Your task to perform on an android device: Go to settings Image 0: 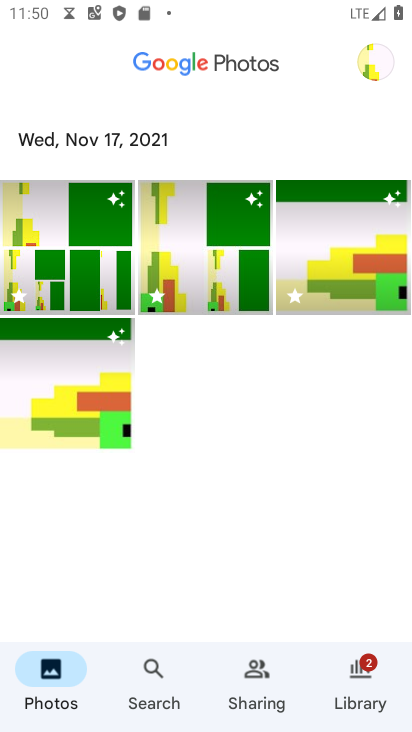
Step 0: press home button
Your task to perform on an android device: Go to settings Image 1: 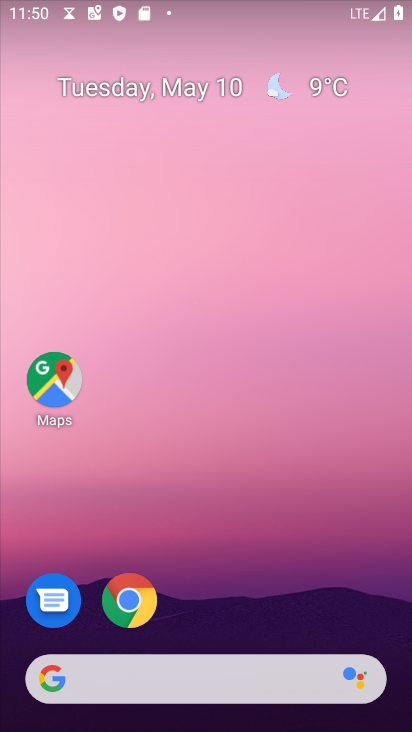
Step 1: drag from (248, 549) to (177, 87)
Your task to perform on an android device: Go to settings Image 2: 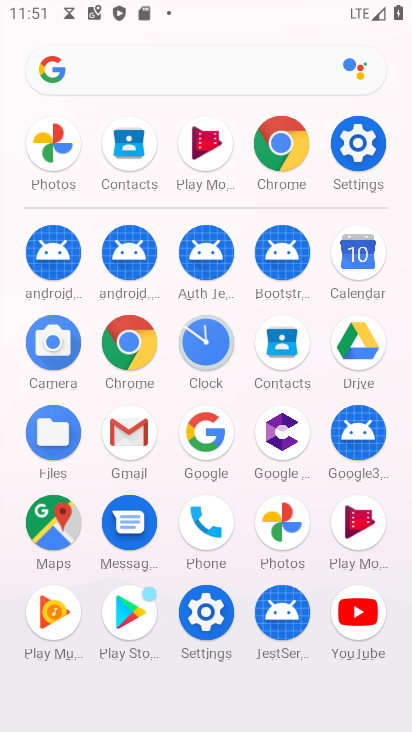
Step 2: click (360, 149)
Your task to perform on an android device: Go to settings Image 3: 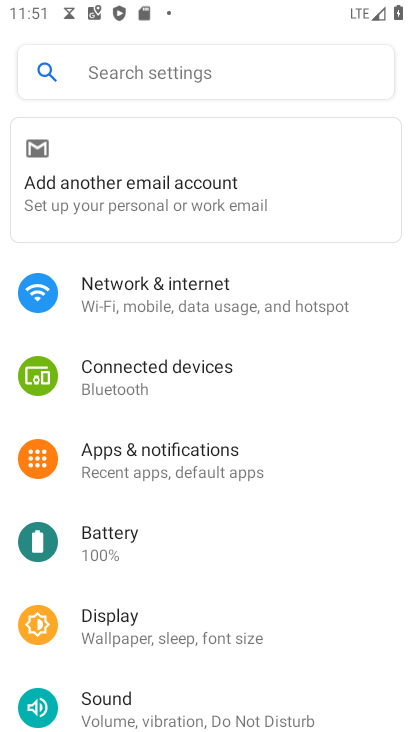
Step 3: task complete